Your task to perform on an android device: change text size in settings app Image 0: 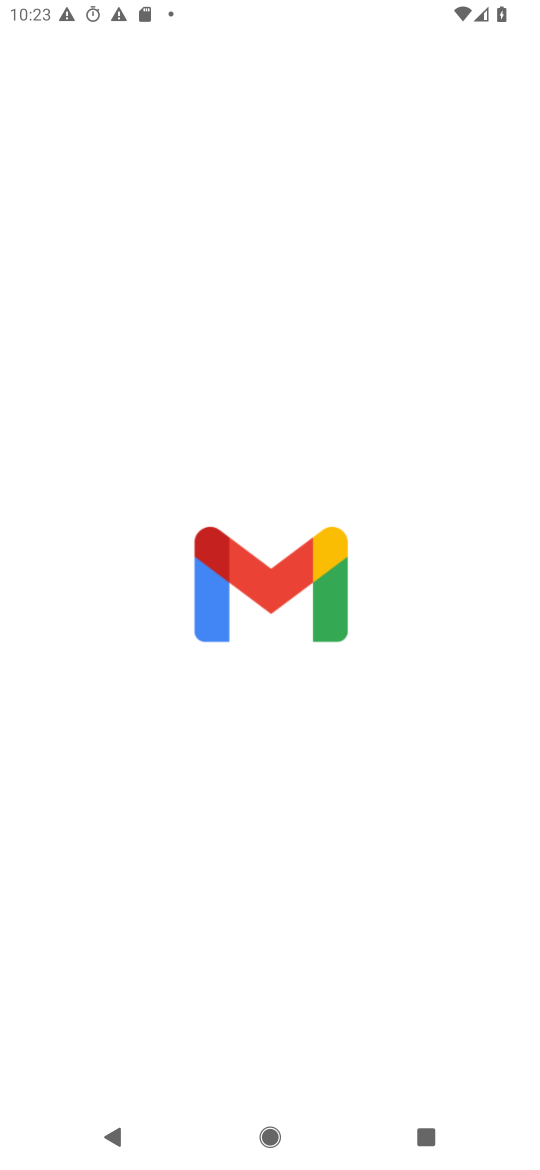
Step 0: press home button
Your task to perform on an android device: change text size in settings app Image 1: 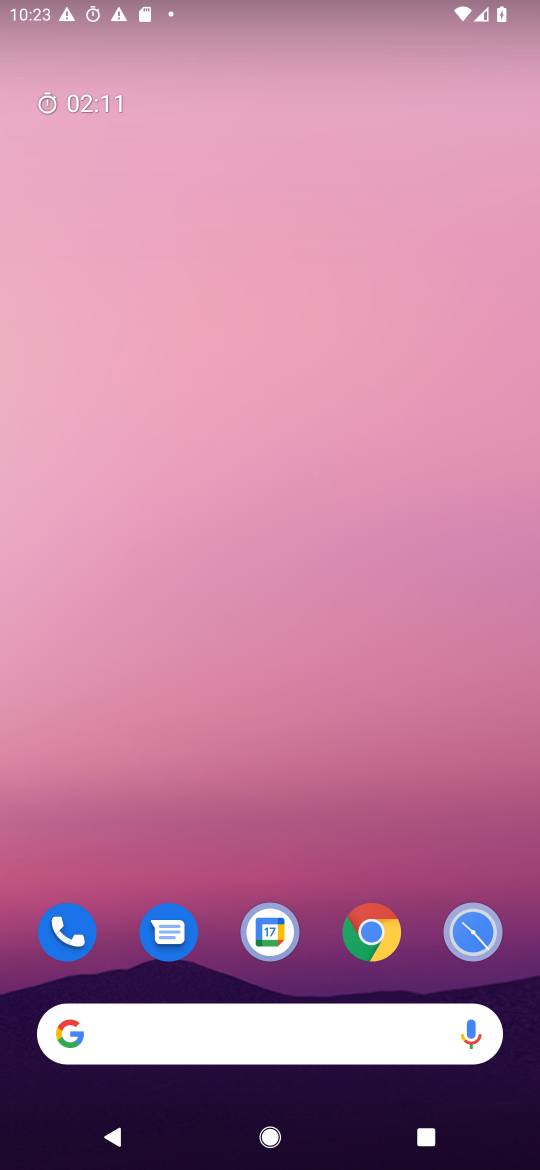
Step 1: drag from (294, 781) to (301, 395)
Your task to perform on an android device: change text size in settings app Image 2: 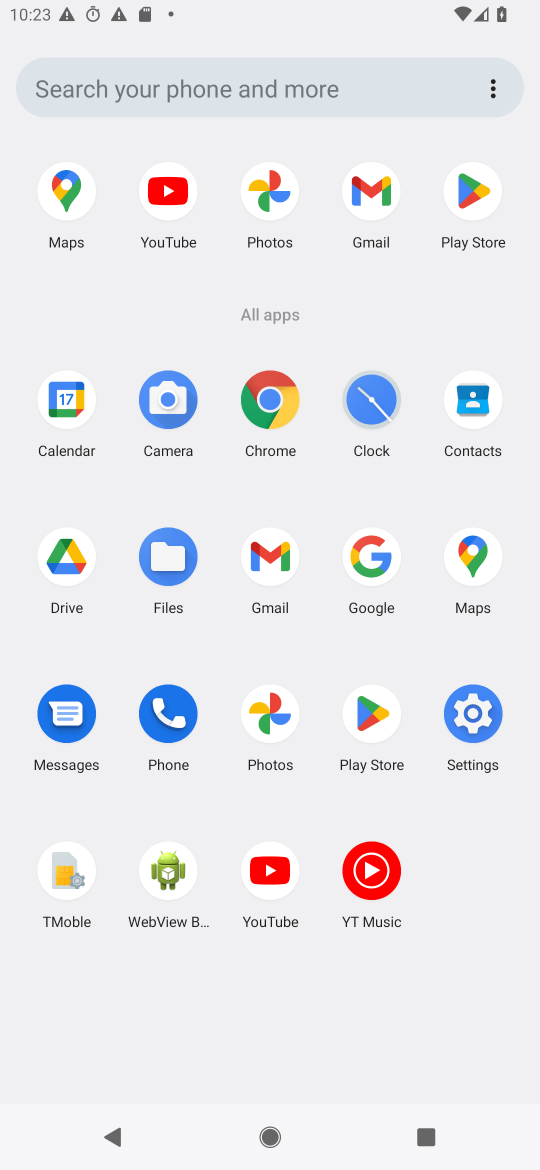
Step 2: click (466, 742)
Your task to perform on an android device: change text size in settings app Image 3: 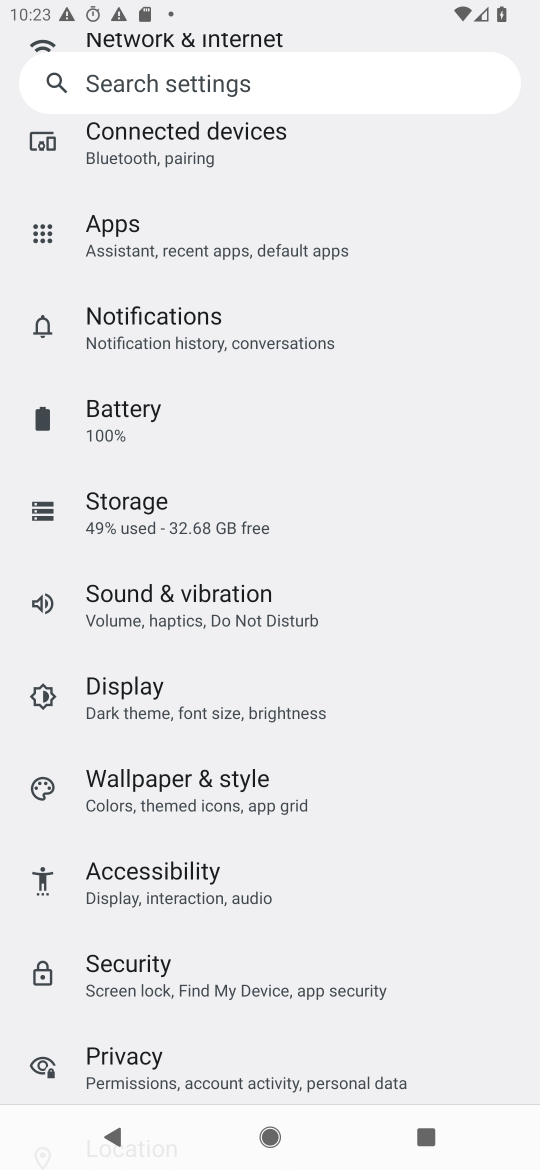
Step 3: click (124, 692)
Your task to perform on an android device: change text size in settings app Image 4: 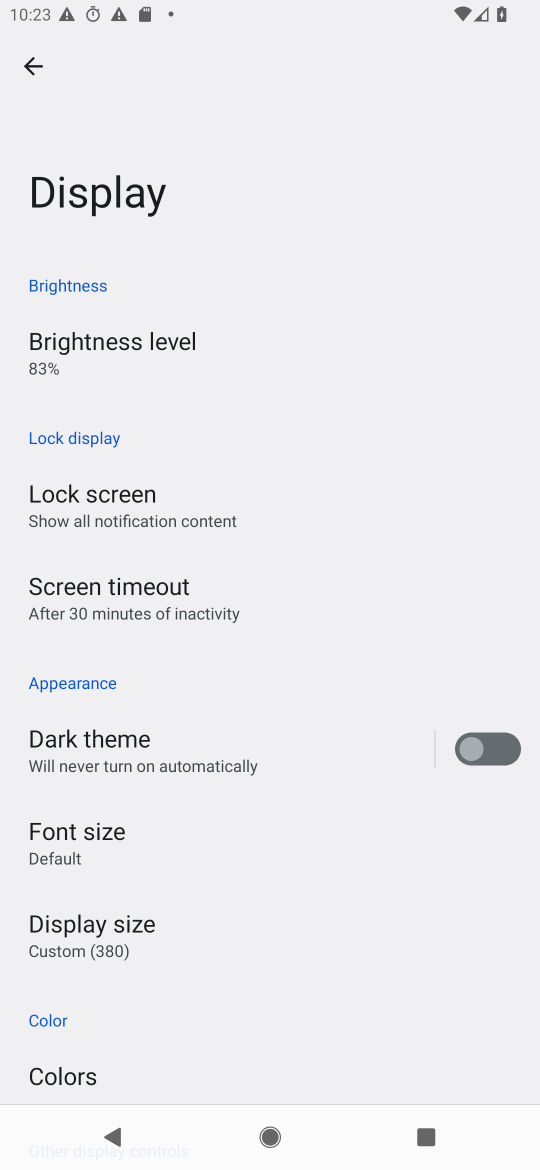
Step 4: click (152, 837)
Your task to perform on an android device: change text size in settings app Image 5: 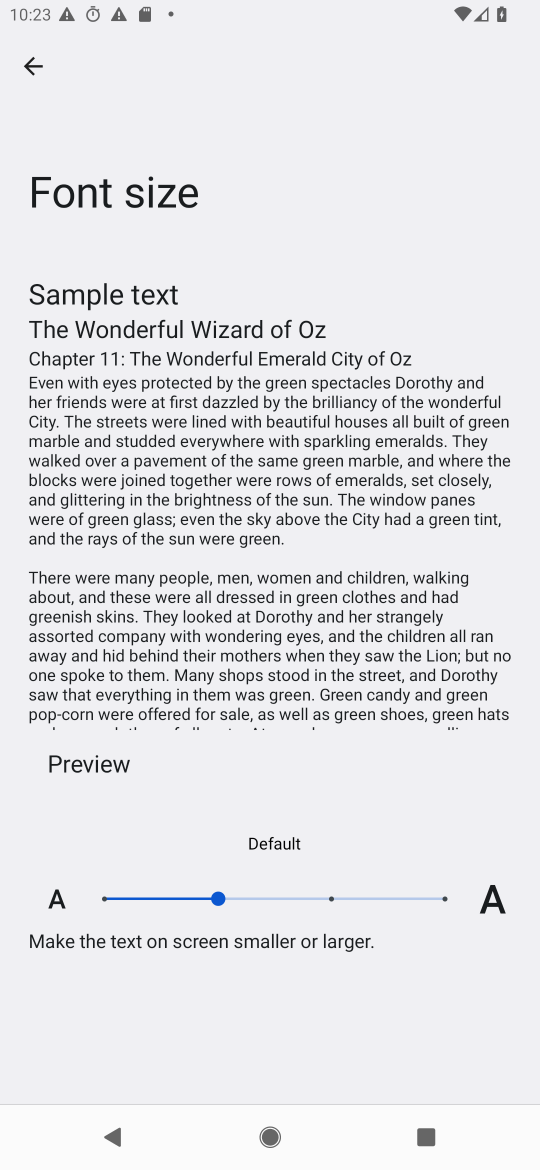
Step 5: click (435, 902)
Your task to perform on an android device: change text size in settings app Image 6: 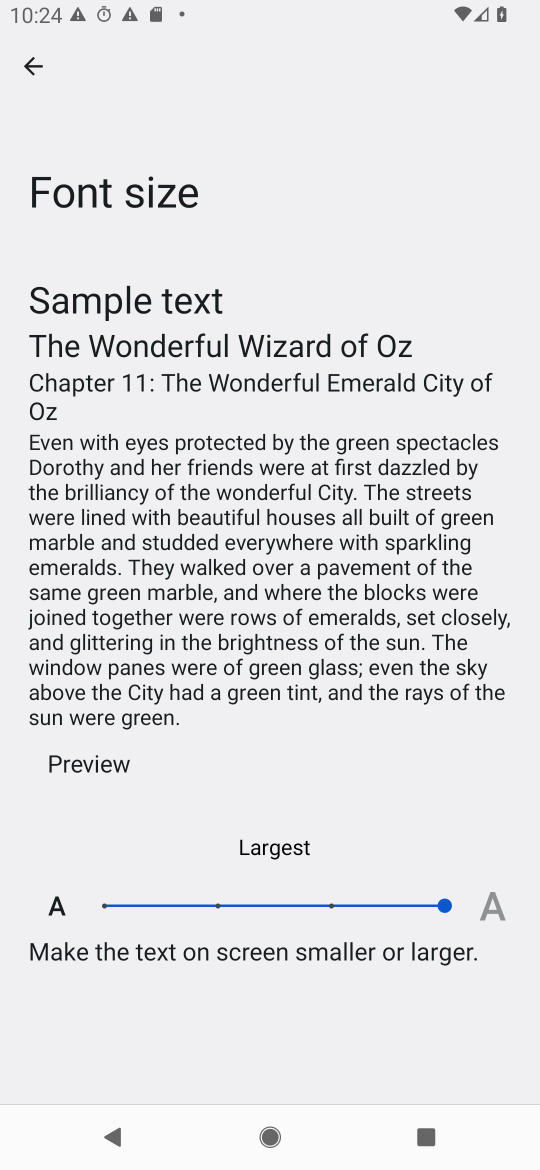
Step 6: task complete